Your task to perform on an android device: change notification settings in the gmail app Image 0: 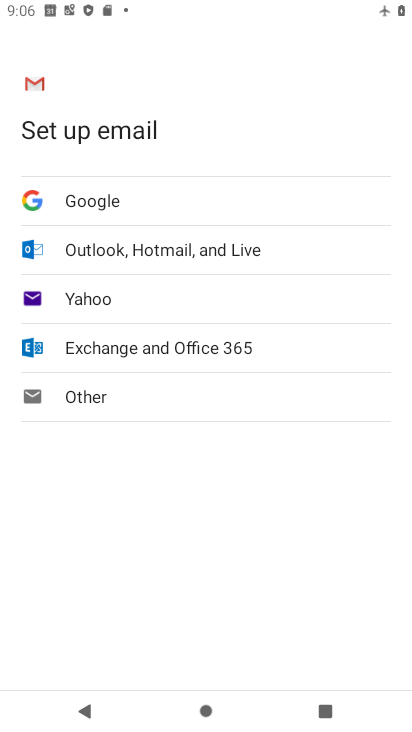
Step 0: press home button
Your task to perform on an android device: change notification settings in the gmail app Image 1: 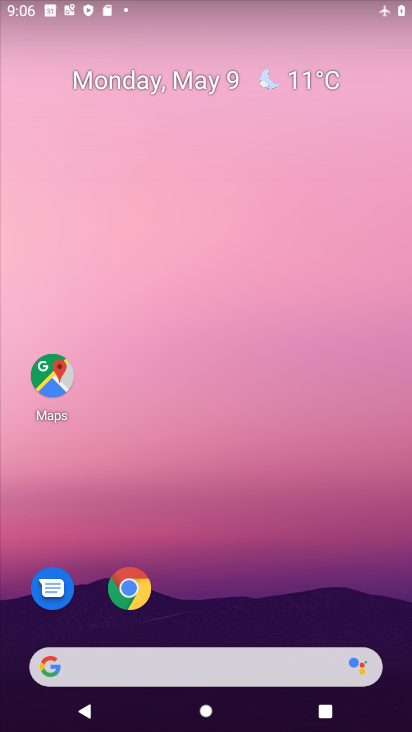
Step 1: drag from (214, 668) to (286, 228)
Your task to perform on an android device: change notification settings in the gmail app Image 2: 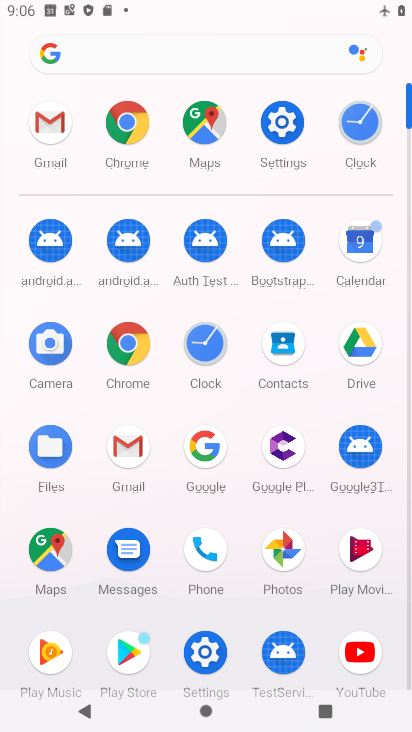
Step 2: click (51, 133)
Your task to perform on an android device: change notification settings in the gmail app Image 3: 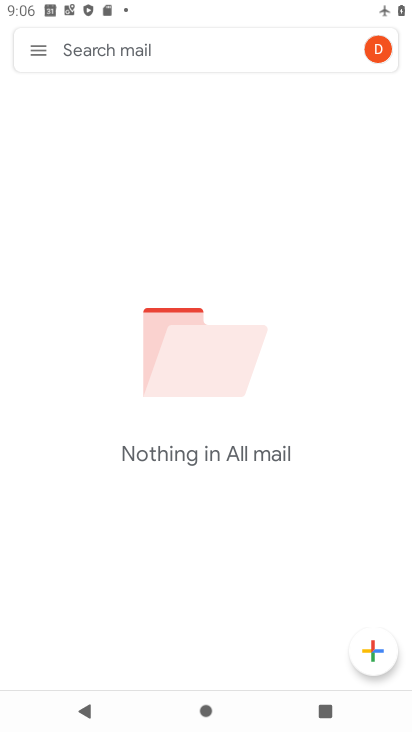
Step 3: click (32, 52)
Your task to perform on an android device: change notification settings in the gmail app Image 4: 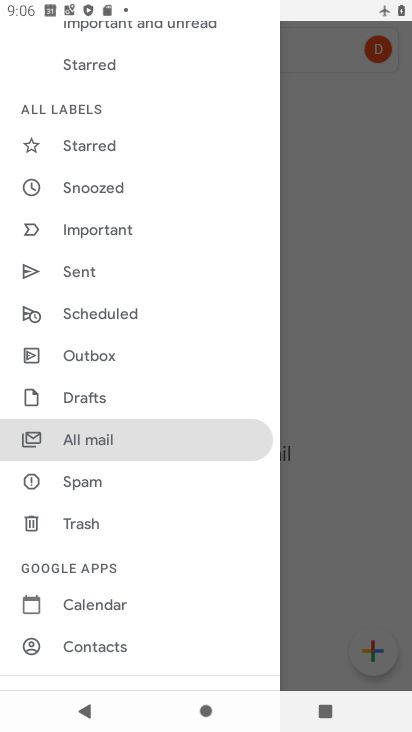
Step 4: drag from (151, 562) to (232, 201)
Your task to perform on an android device: change notification settings in the gmail app Image 5: 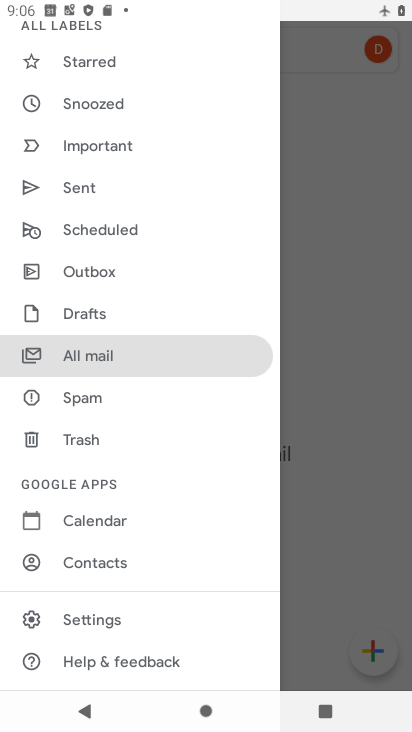
Step 5: click (101, 616)
Your task to perform on an android device: change notification settings in the gmail app Image 6: 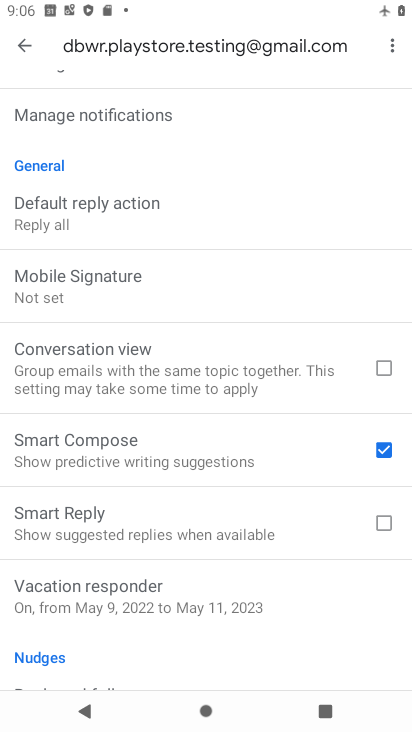
Step 6: drag from (302, 158) to (222, 630)
Your task to perform on an android device: change notification settings in the gmail app Image 7: 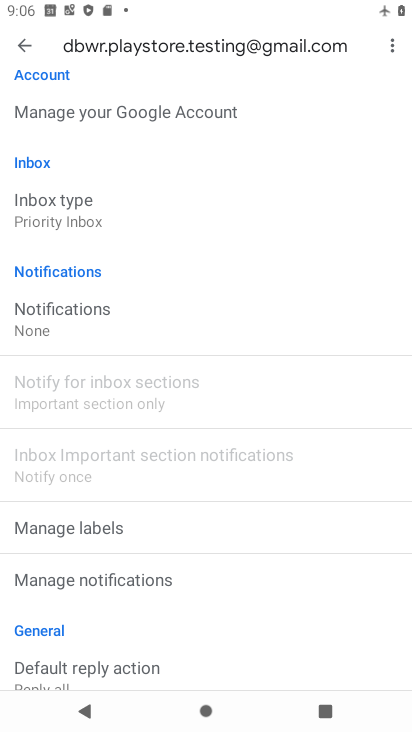
Step 7: click (58, 319)
Your task to perform on an android device: change notification settings in the gmail app Image 8: 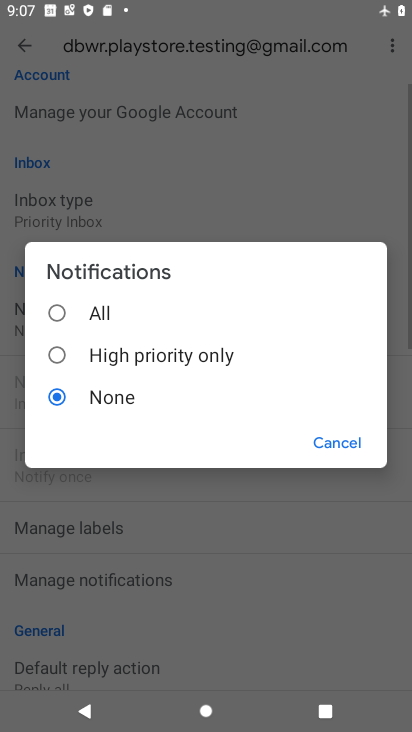
Step 8: click (58, 314)
Your task to perform on an android device: change notification settings in the gmail app Image 9: 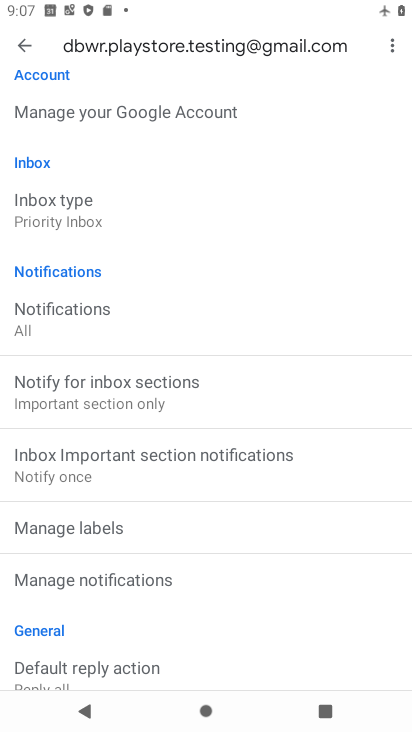
Step 9: task complete